Your task to perform on an android device: Search for top rated seafood restaurants on Google Maps Image 0: 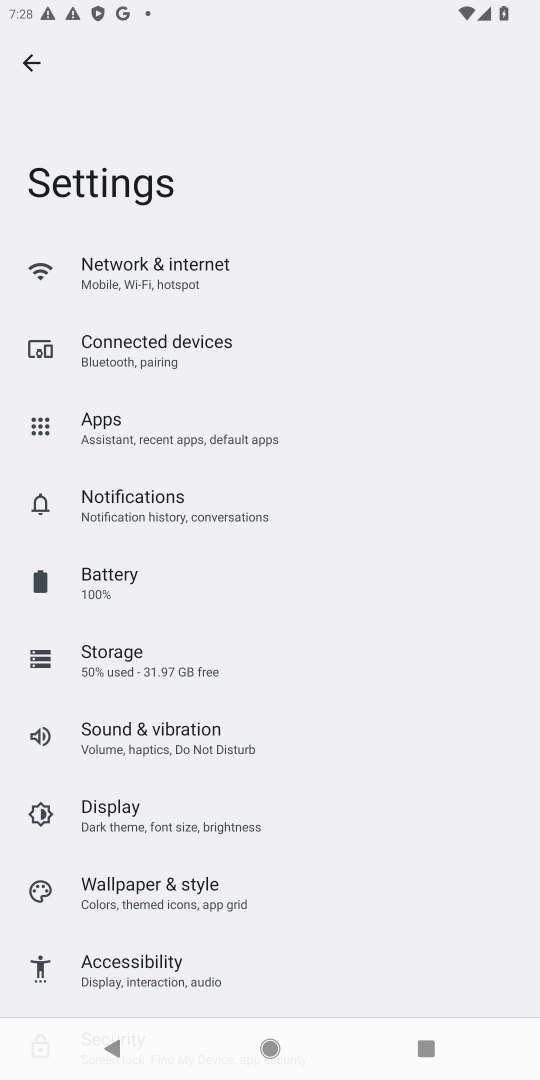
Step 0: press home button
Your task to perform on an android device: Search for top rated seafood restaurants on Google Maps Image 1: 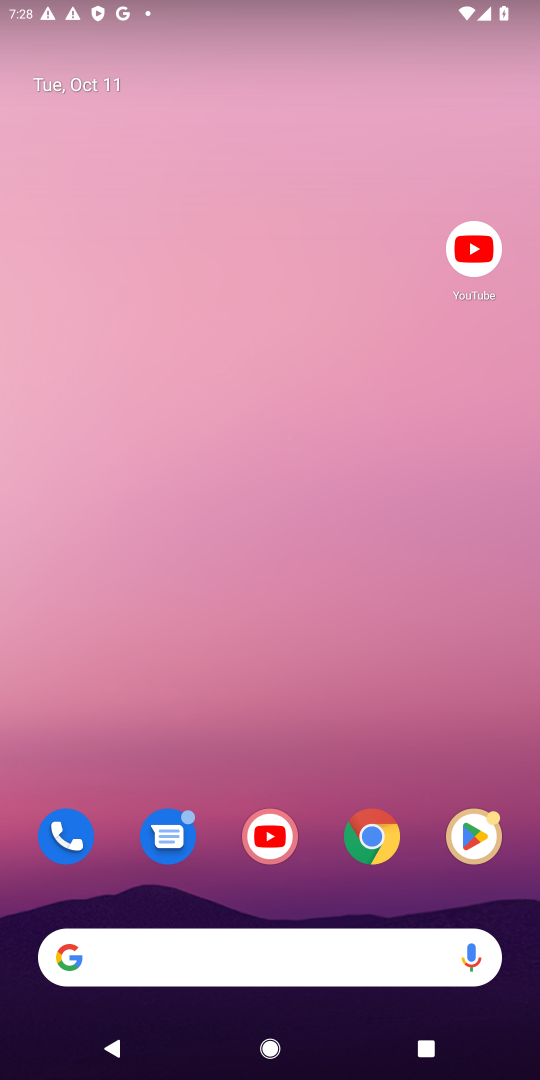
Step 1: drag from (302, 952) to (467, 13)
Your task to perform on an android device: Search for top rated seafood restaurants on Google Maps Image 2: 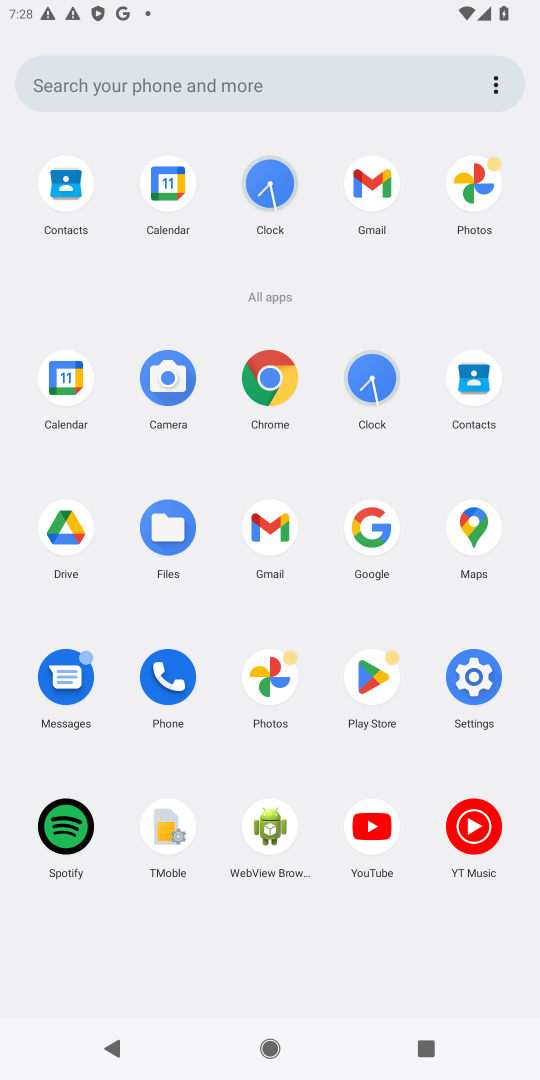
Step 2: click (477, 529)
Your task to perform on an android device: Search for top rated seafood restaurants on Google Maps Image 3: 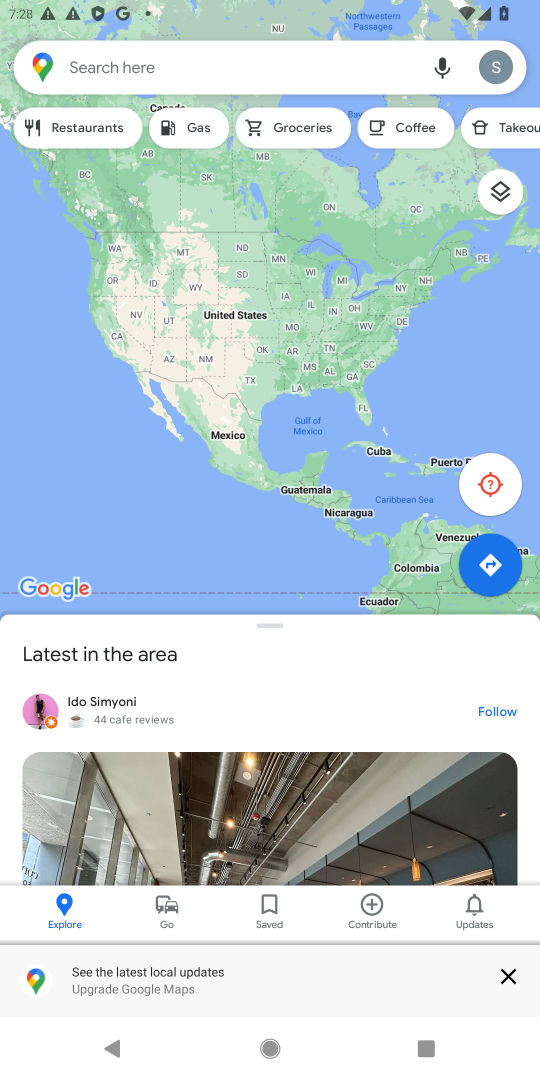
Step 3: click (252, 74)
Your task to perform on an android device: Search for top rated seafood restaurants on Google Maps Image 4: 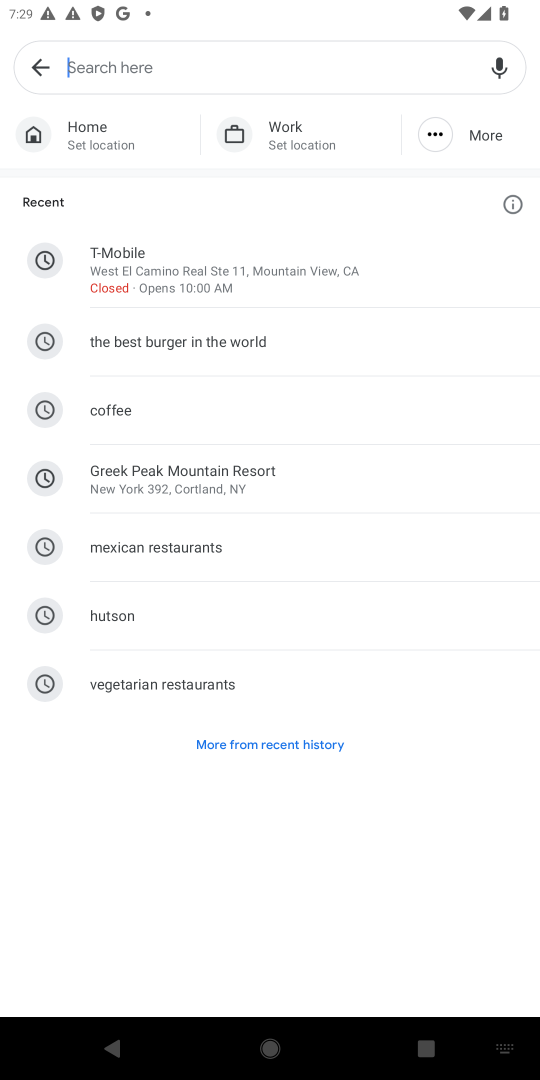
Step 4: type " seafood restaurants"
Your task to perform on an android device: Search for top rated seafood restaurants on Google Maps Image 5: 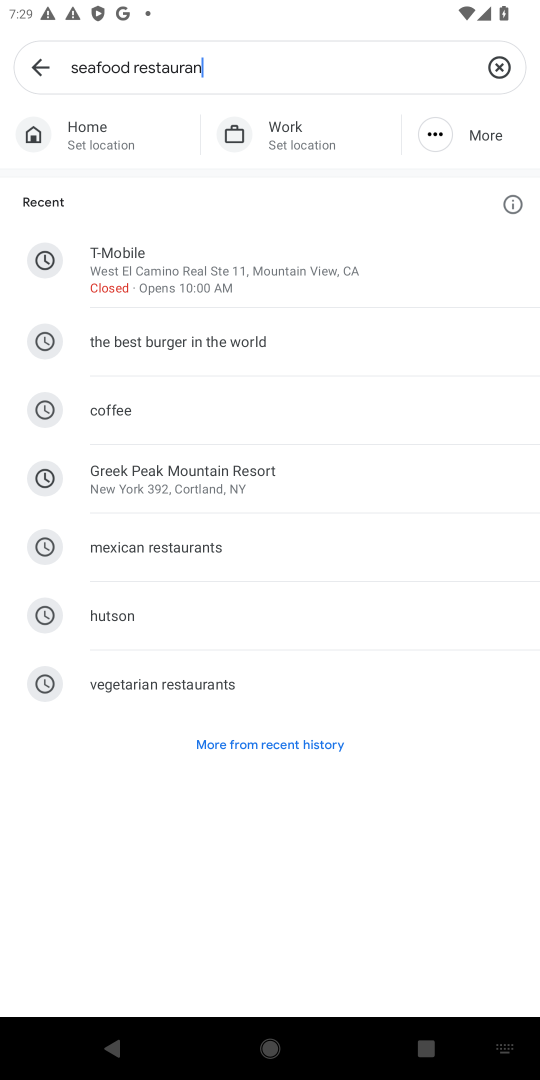
Step 5: press enter
Your task to perform on an android device: Search for top rated seafood restaurants on Google Maps Image 6: 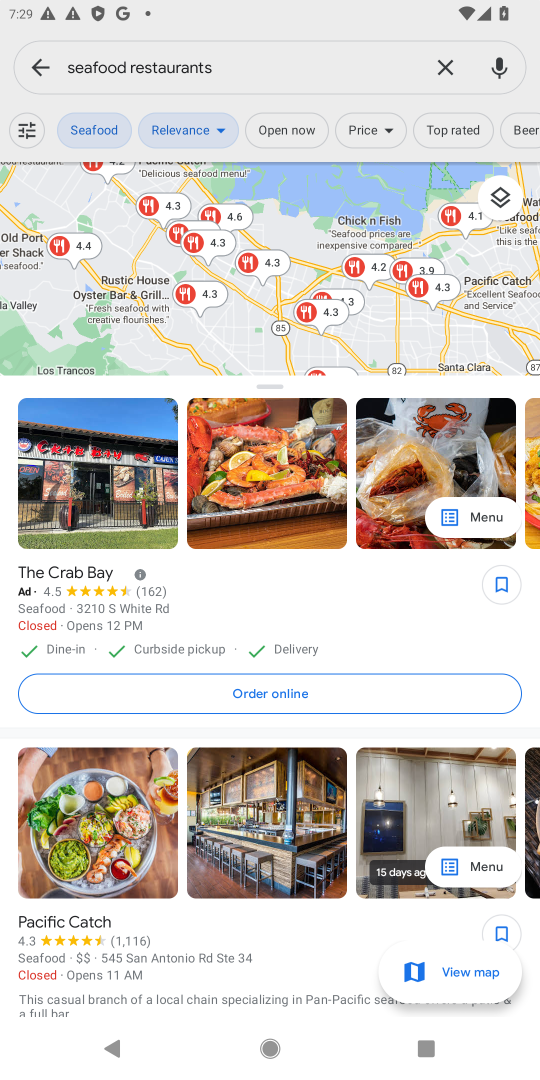
Step 6: task complete